Your task to perform on an android device: Open the calendar and show me this week's events Image 0: 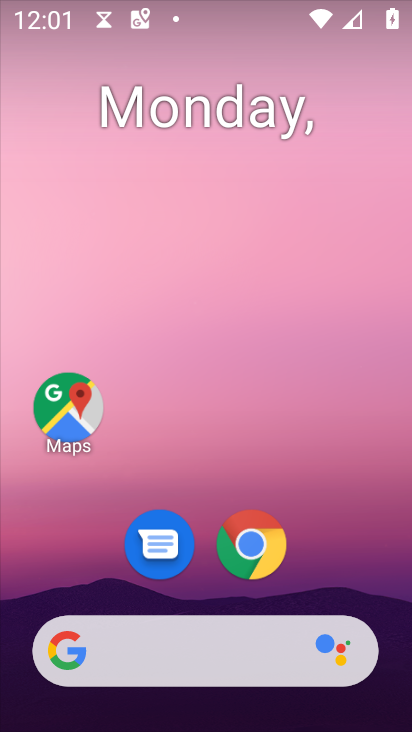
Step 0: drag from (328, 540) to (352, 223)
Your task to perform on an android device: Open the calendar and show me this week's events Image 1: 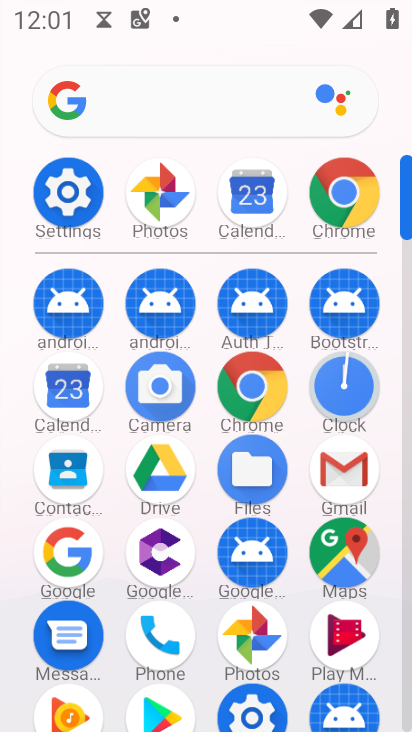
Step 1: click (72, 390)
Your task to perform on an android device: Open the calendar and show me this week's events Image 2: 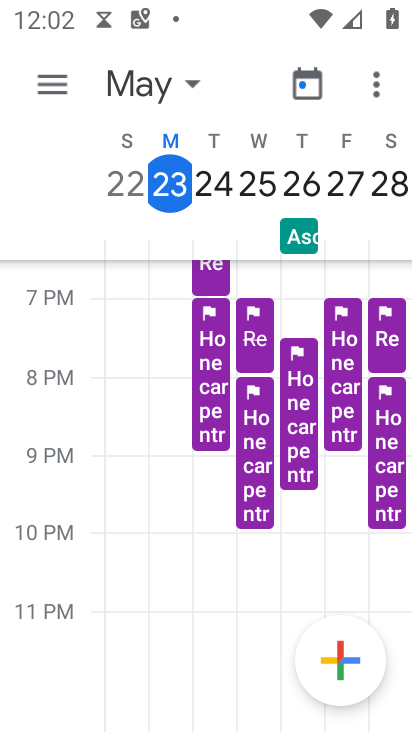
Step 2: task complete